Your task to perform on an android device: Open privacy settings Image 0: 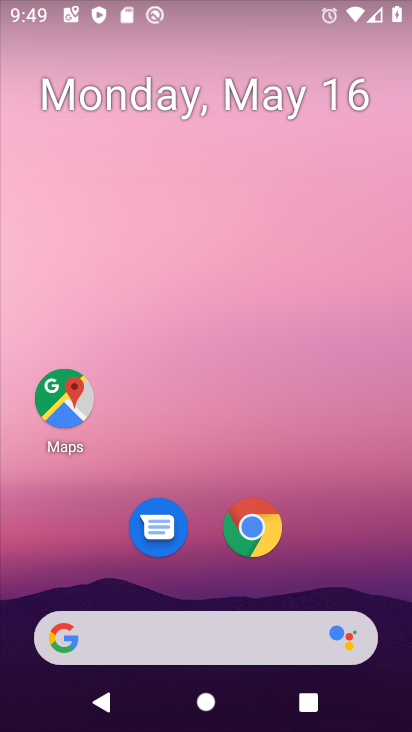
Step 0: drag from (353, 508) to (333, 4)
Your task to perform on an android device: Open privacy settings Image 1: 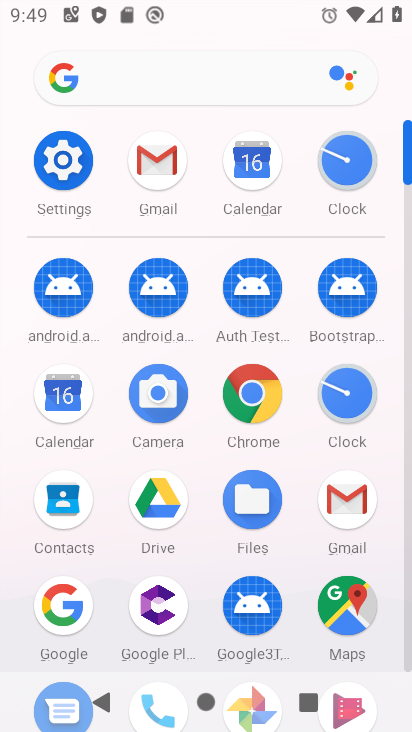
Step 1: click (53, 167)
Your task to perform on an android device: Open privacy settings Image 2: 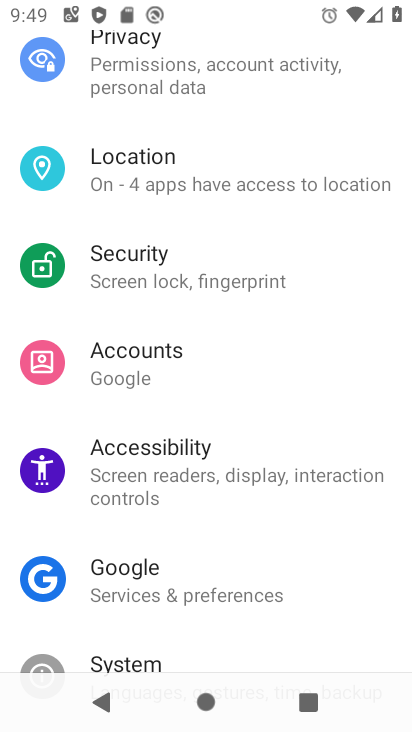
Step 2: click (145, 76)
Your task to perform on an android device: Open privacy settings Image 3: 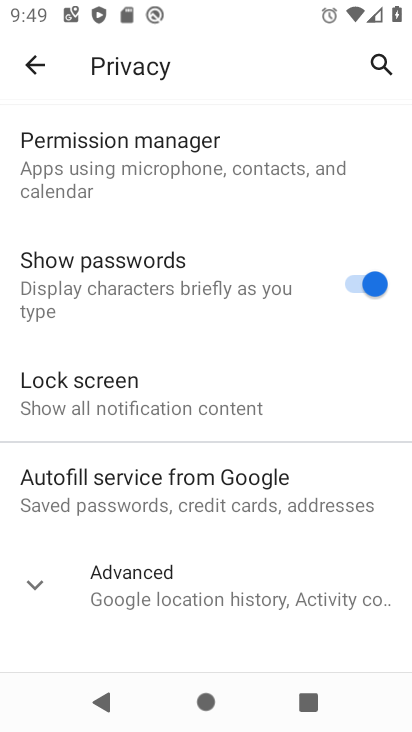
Step 3: task complete